Your task to perform on an android device: change the clock display to show seconds Image 0: 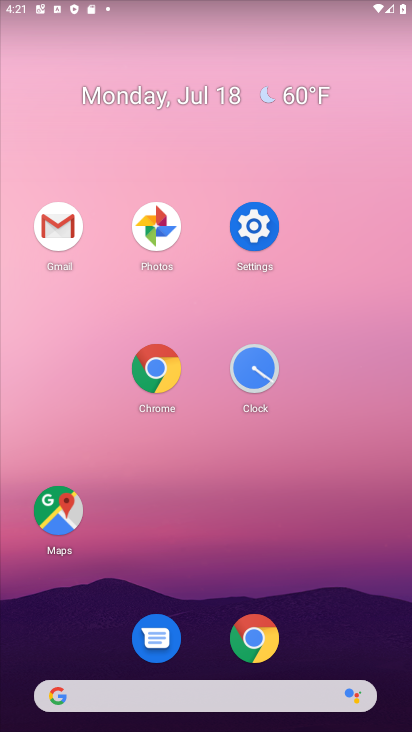
Step 0: click (241, 364)
Your task to perform on an android device: change the clock display to show seconds Image 1: 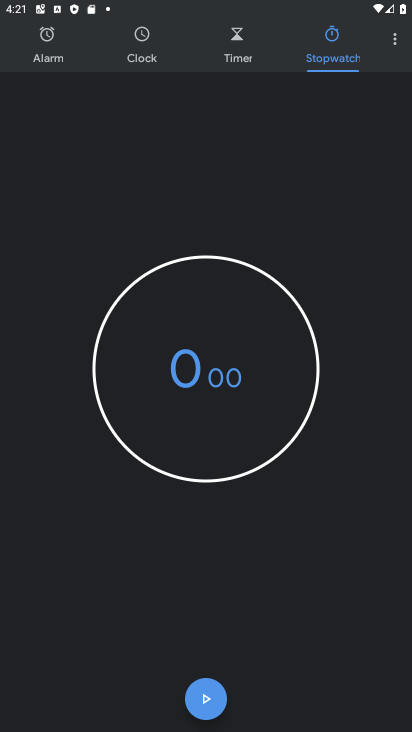
Step 1: click (397, 48)
Your task to perform on an android device: change the clock display to show seconds Image 2: 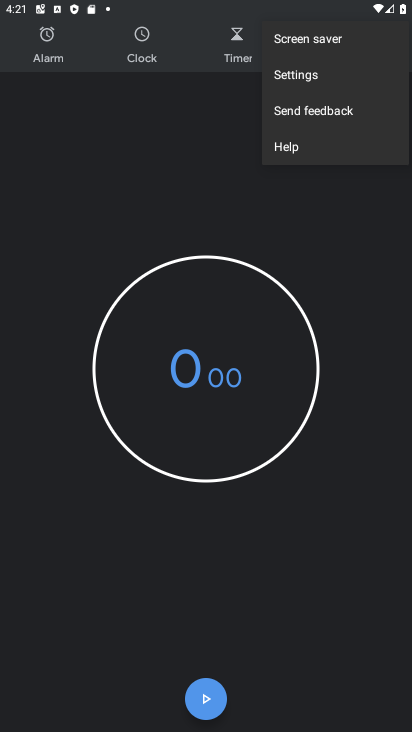
Step 2: click (296, 85)
Your task to perform on an android device: change the clock display to show seconds Image 3: 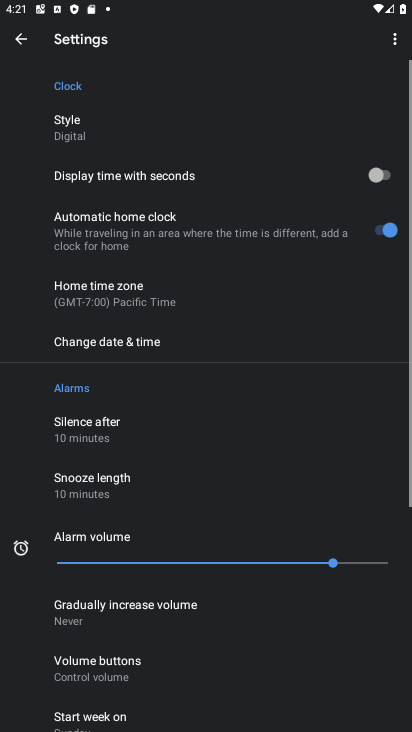
Step 3: click (361, 183)
Your task to perform on an android device: change the clock display to show seconds Image 4: 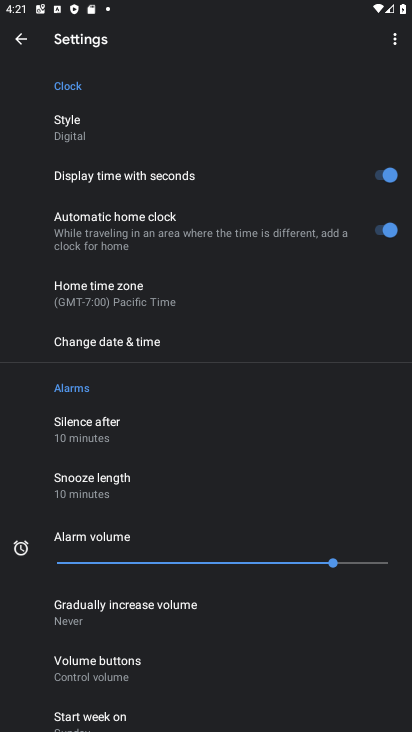
Step 4: task complete